Your task to perform on an android device: check the backup settings in the google photos Image 0: 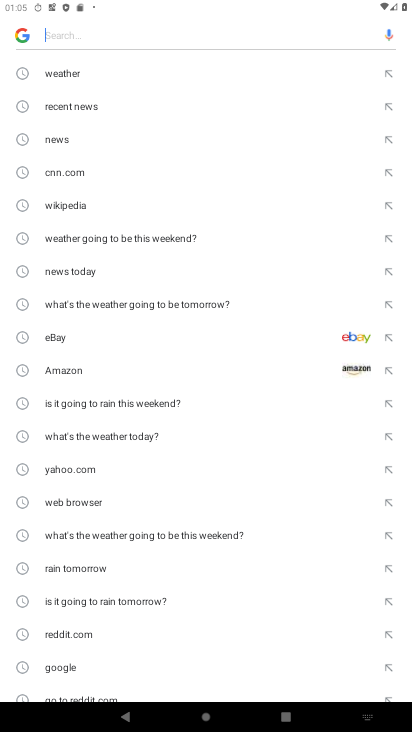
Step 0: press home button
Your task to perform on an android device: check the backup settings in the google photos Image 1: 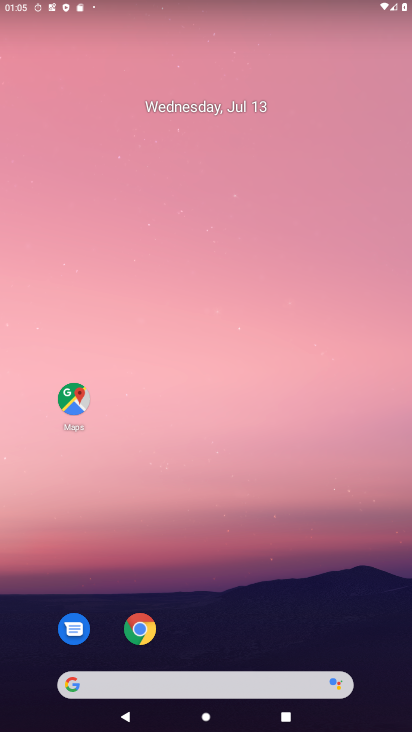
Step 1: drag from (191, 570) to (188, 189)
Your task to perform on an android device: check the backup settings in the google photos Image 2: 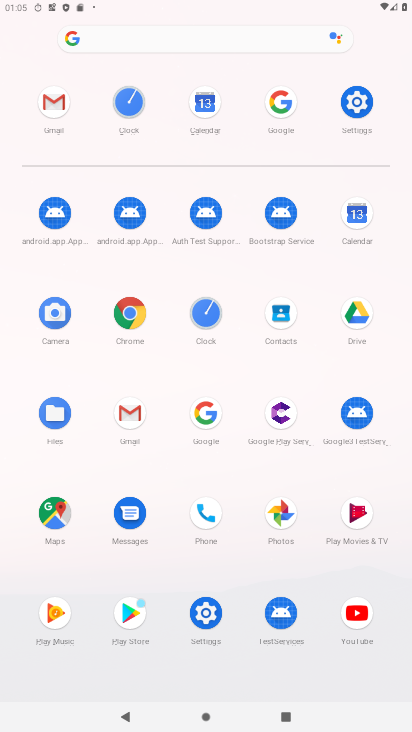
Step 2: click (263, 498)
Your task to perform on an android device: check the backup settings in the google photos Image 3: 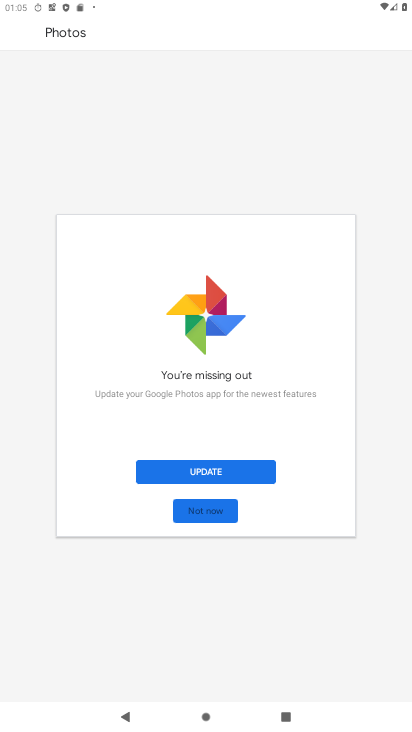
Step 3: click (225, 502)
Your task to perform on an android device: check the backup settings in the google photos Image 4: 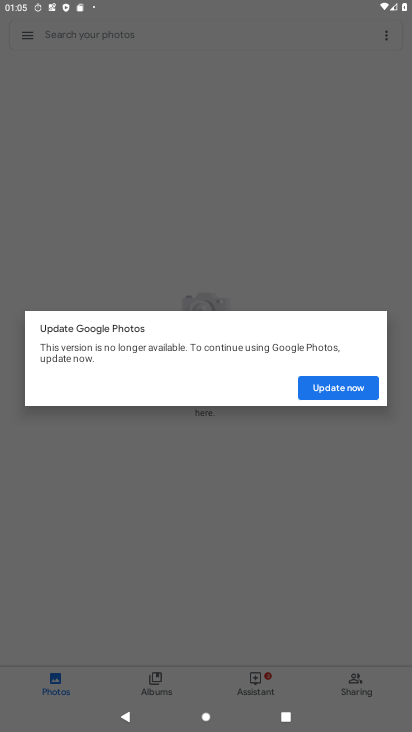
Step 4: click (324, 379)
Your task to perform on an android device: check the backup settings in the google photos Image 5: 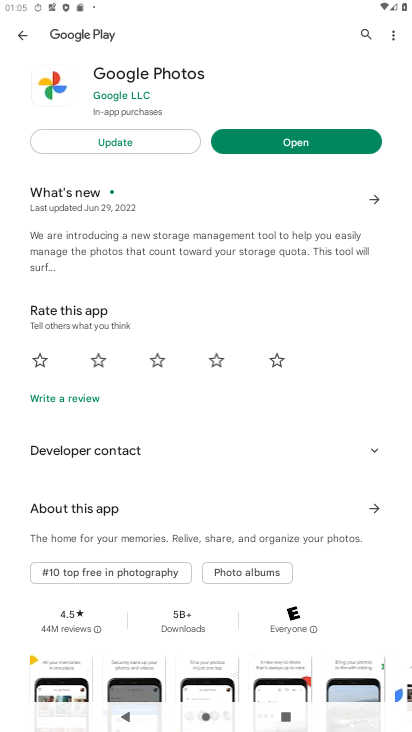
Step 5: click (245, 130)
Your task to perform on an android device: check the backup settings in the google photos Image 6: 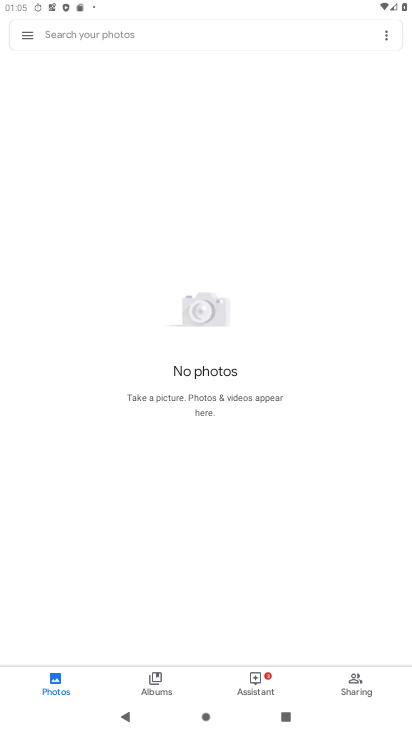
Step 6: click (32, 32)
Your task to perform on an android device: check the backup settings in the google photos Image 7: 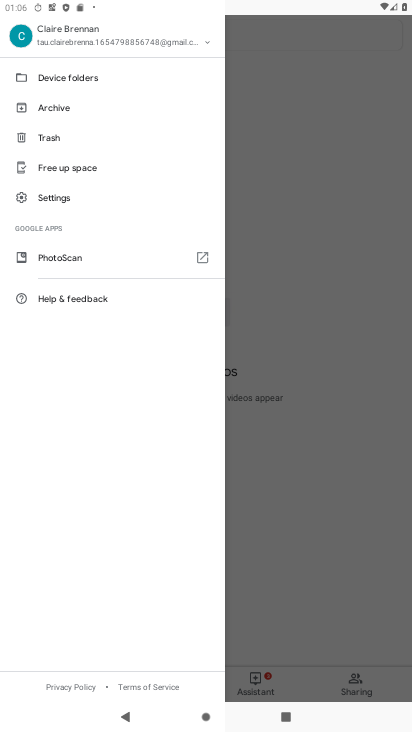
Step 7: click (64, 200)
Your task to perform on an android device: check the backup settings in the google photos Image 8: 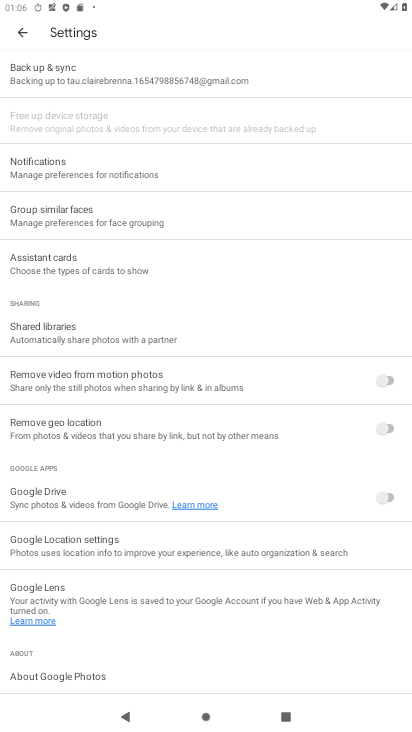
Step 8: click (51, 95)
Your task to perform on an android device: check the backup settings in the google photos Image 9: 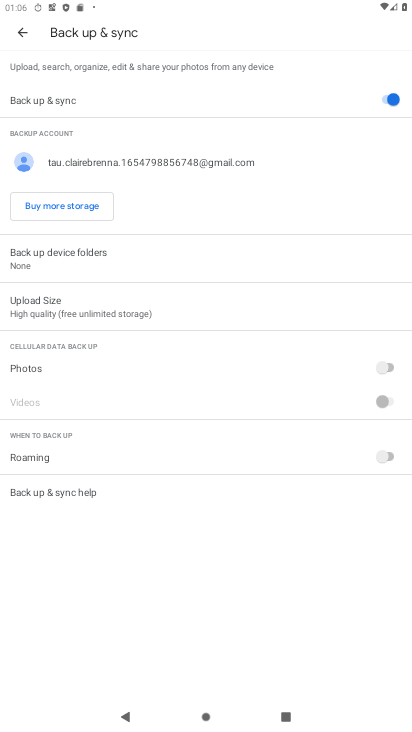
Step 9: task complete